Your task to perform on an android device: open sync settings in chrome Image 0: 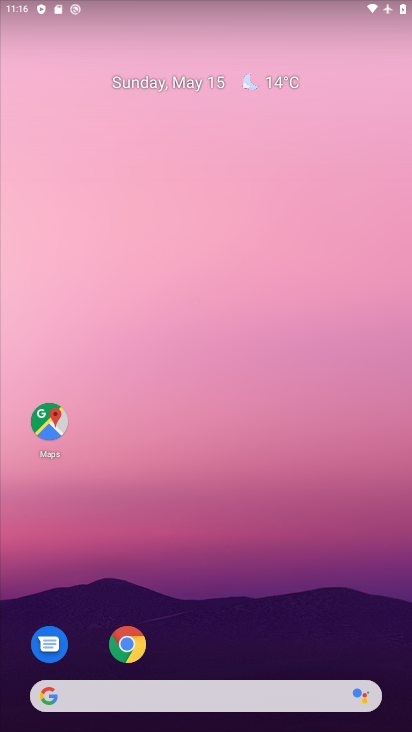
Step 0: click (123, 644)
Your task to perform on an android device: open sync settings in chrome Image 1: 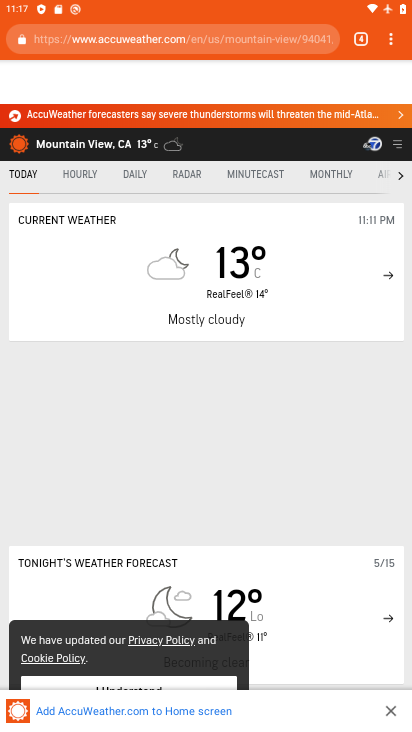
Step 1: click (389, 42)
Your task to perform on an android device: open sync settings in chrome Image 2: 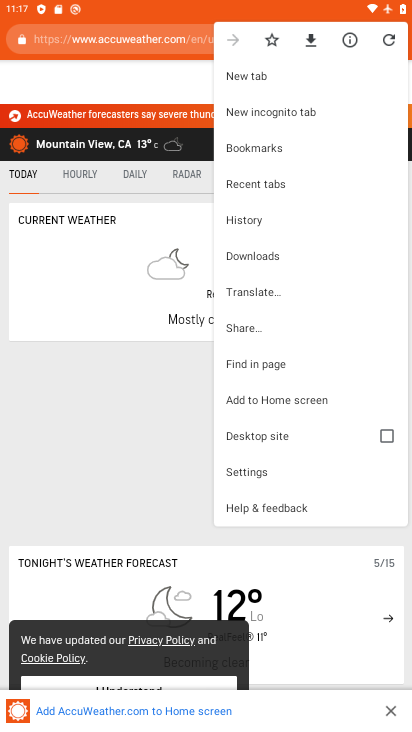
Step 2: click (253, 470)
Your task to perform on an android device: open sync settings in chrome Image 3: 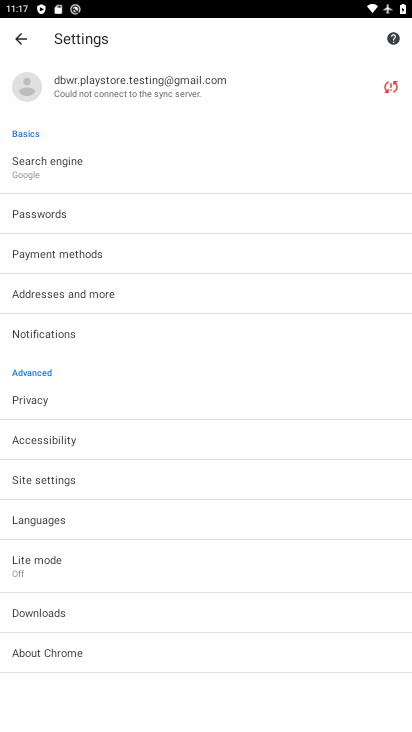
Step 3: click (49, 478)
Your task to perform on an android device: open sync settings in chrome Image 4: 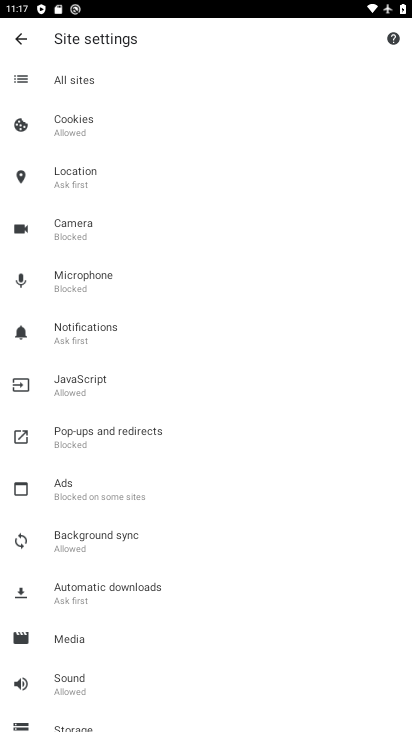
Step 4: click (78, 541)
Your task to perform on an android device: open sync settings in chrome Image 5: 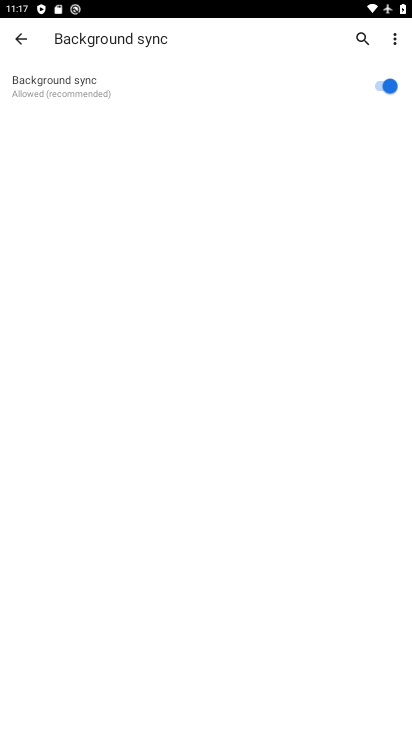
Step 5: task complete